Your task to perform on an android device: open a bookmark in the chrome app Image 0: 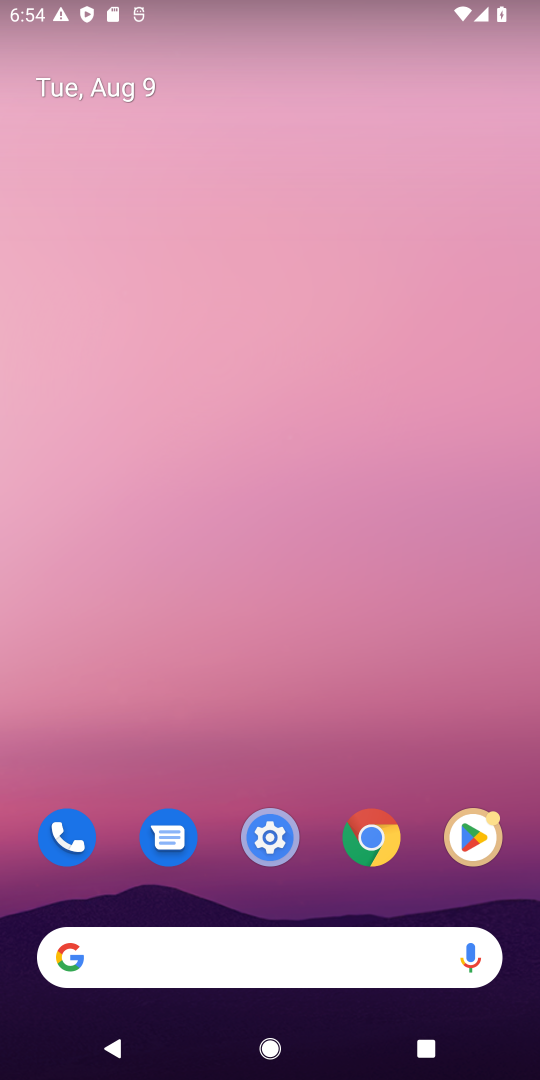
Step 0: click (377, 852)
Your task to perform on an android device: open a bookmark in the chrome app Image 1: 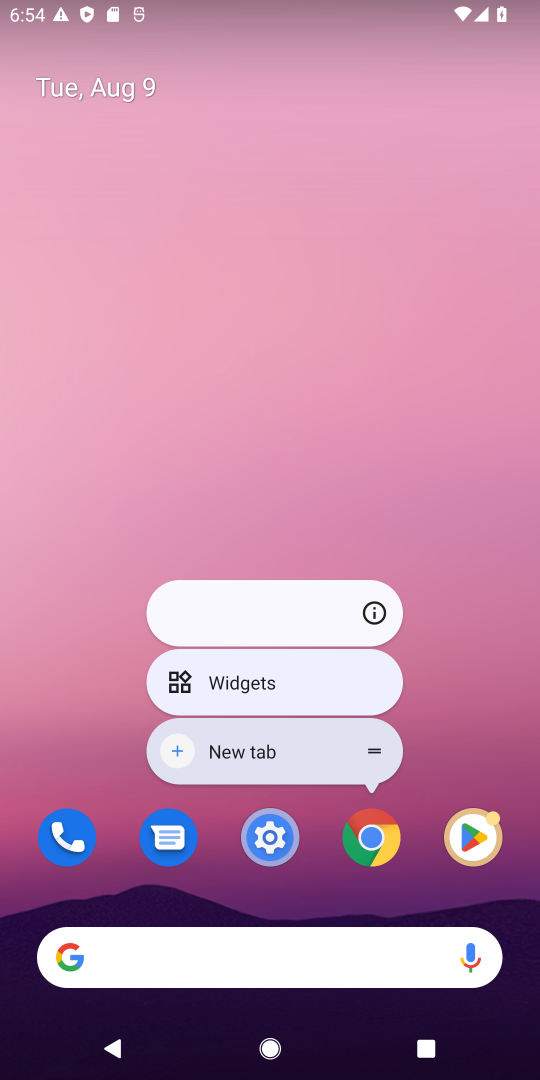
Step 1: click (365, 618)
Your task to perform on an android device: open a bookmark in the chrome app Image 2: 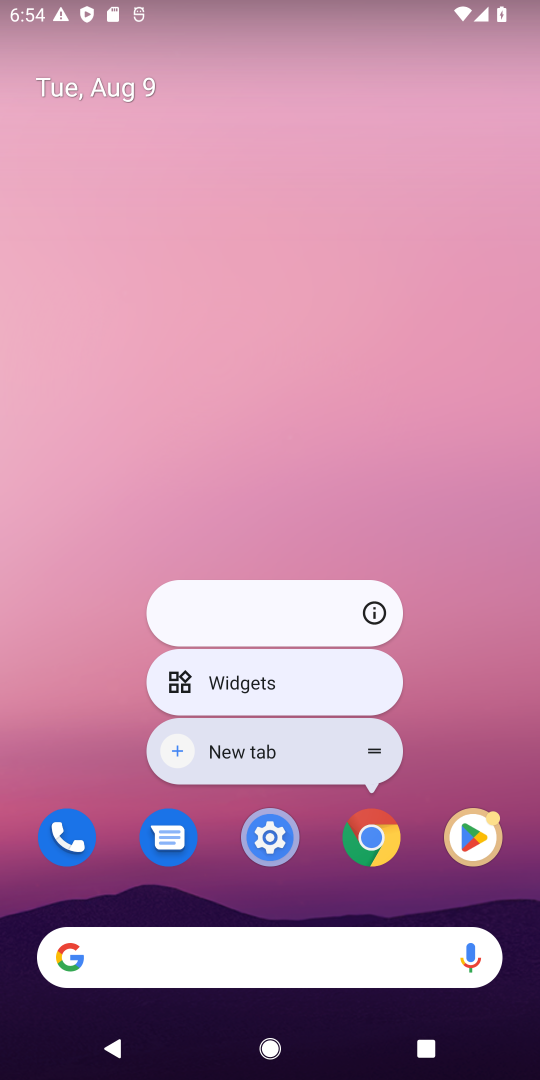
Step 2: click (357, 606)
Your task to perform on an android device: open a bookmark in the chrome app Image 3: 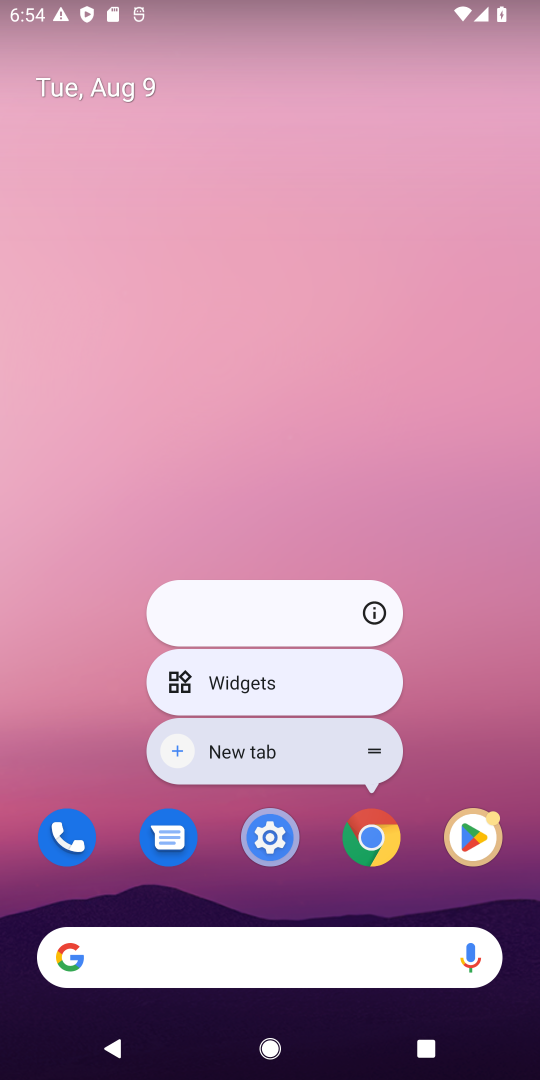
Step 3: click (382, 617)
Your task to perform on an android device: open a bookmark in the chrome app Image 4: 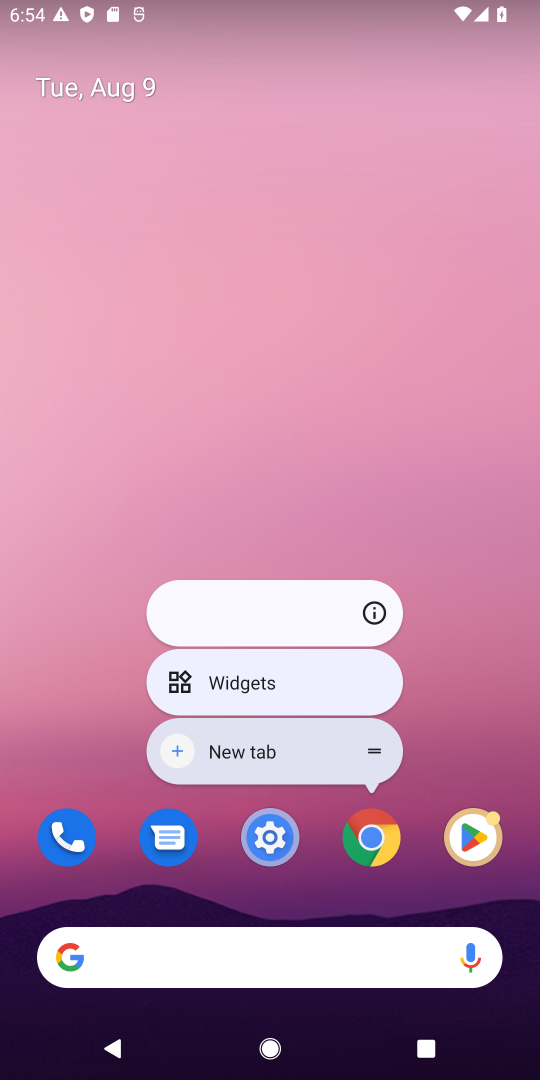
Step 4: click (370, 615)
Your task to perform on an android device: open a bookmark in the chrome app Image 5: 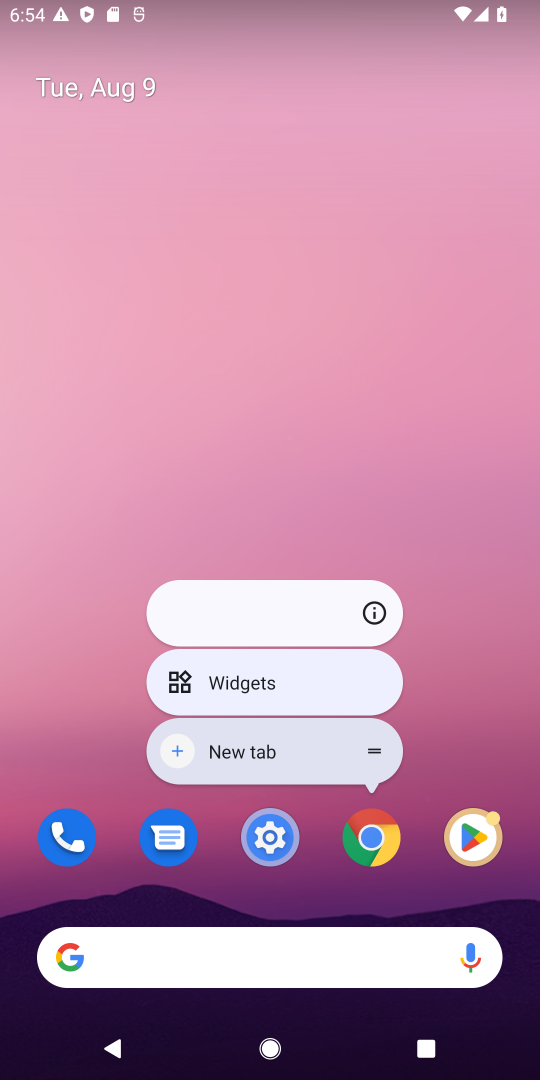
Step 5: click (375, 822)
Your task to perform on an android device: open a bookmark in the chrome app Image 6: 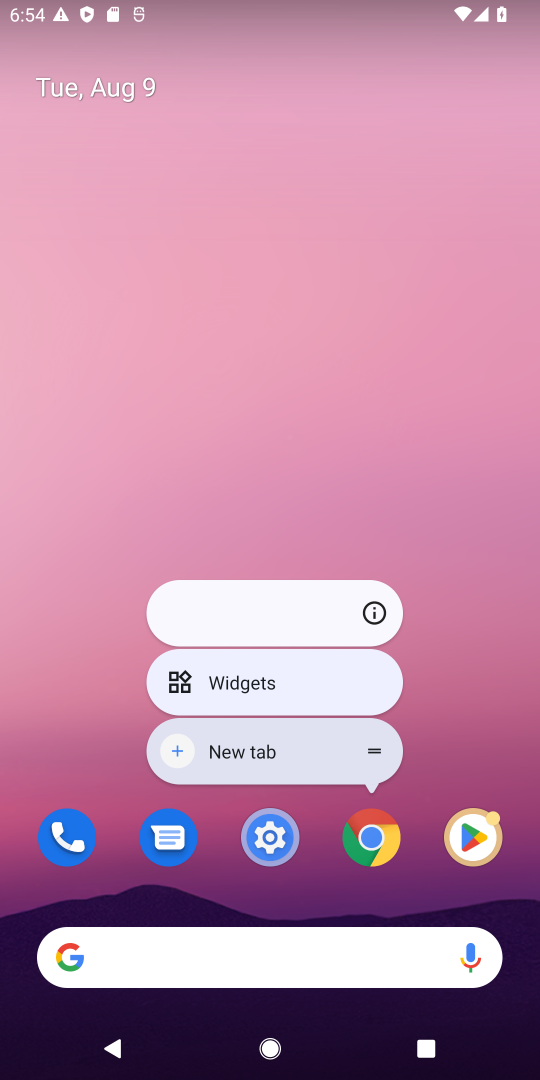
Step 6: click (368, 823)
Your task to perform on an android device: open a bookmark in the chrome app Image 7: 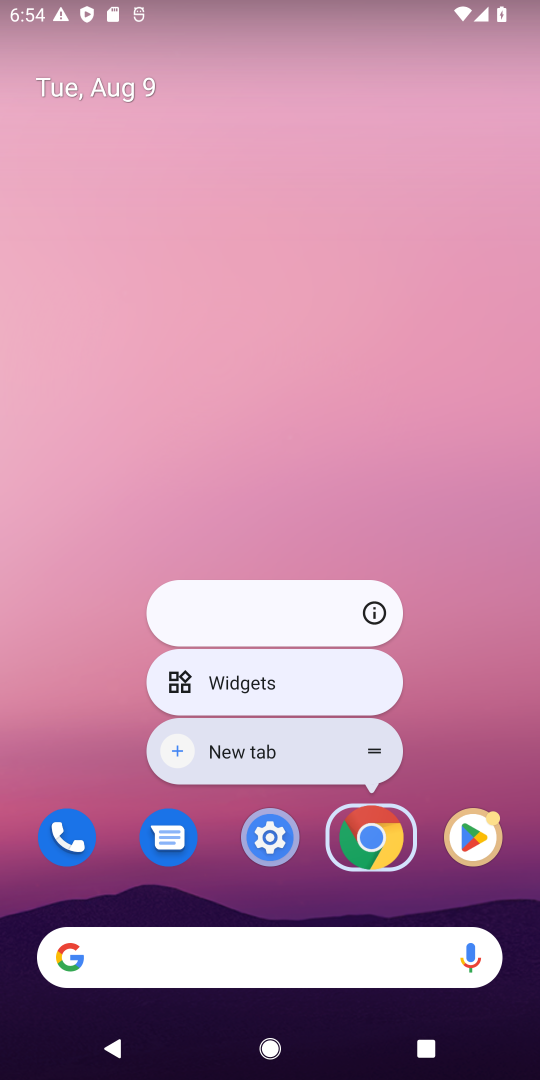
Step 7: click (368, 823)
Your task to perform on an android device: open a bookmark in the chrome app Image 8: 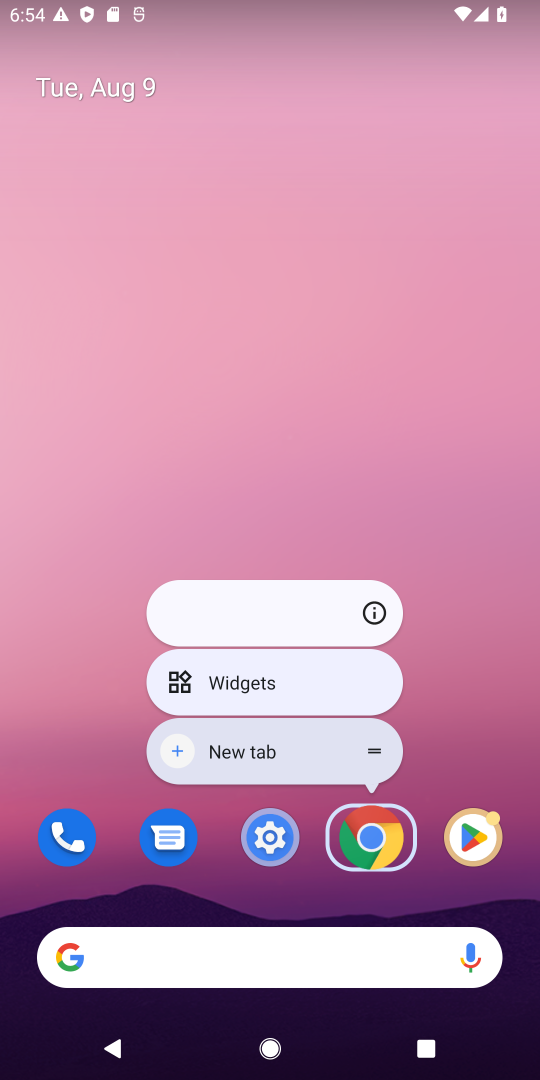
Step 8: click (368, 823)
Your task to perform on an android device: open a bookmark in the chrome app Image 9: 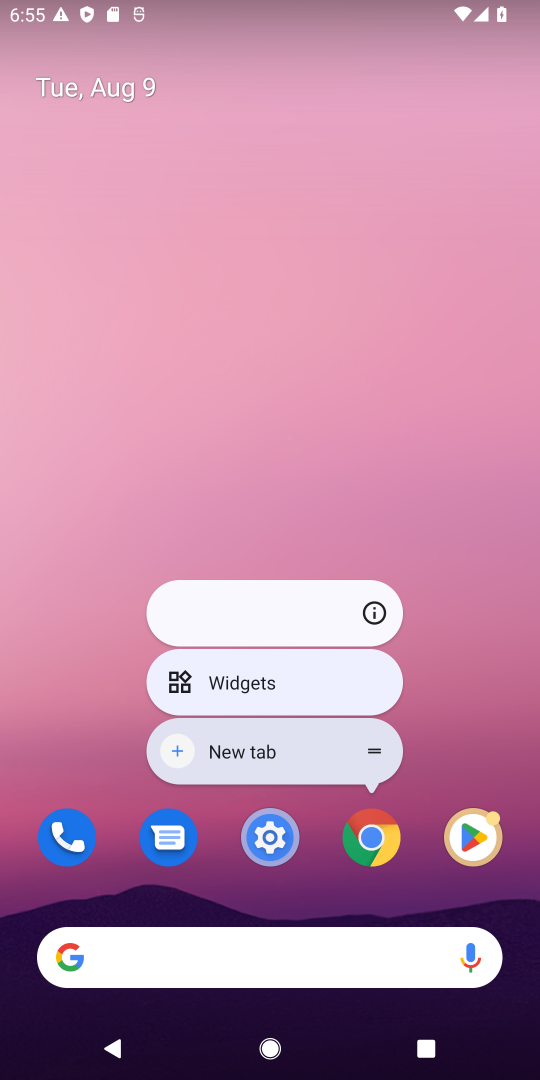
Step 9: click (353, 832)
Your task to perform on an android device: open a bookmark in the chrome app Image 10: 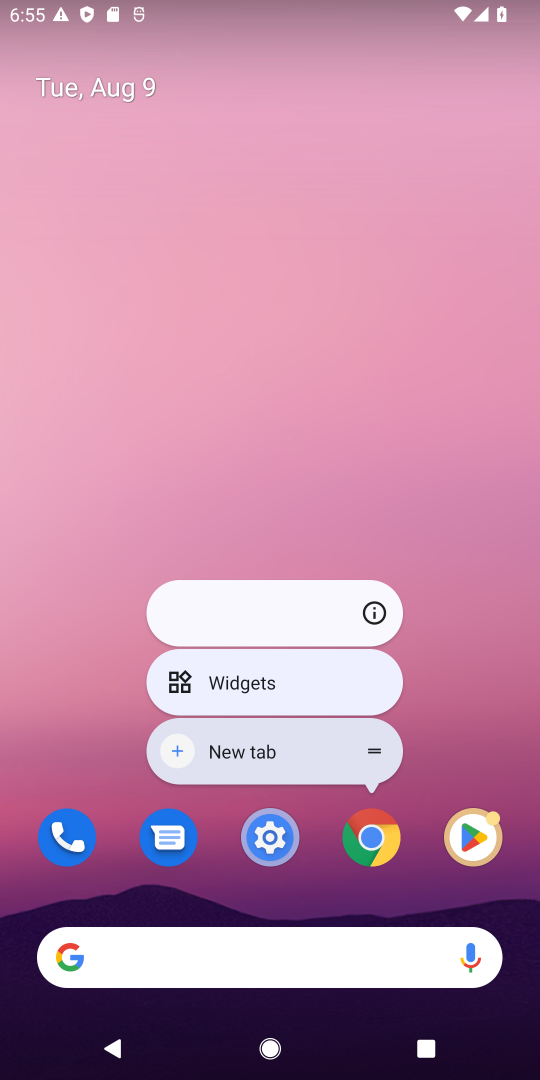
Step 10: click (361, 621)
Your task to perform on an android device: open a bookmark in the chrome app Image 11: 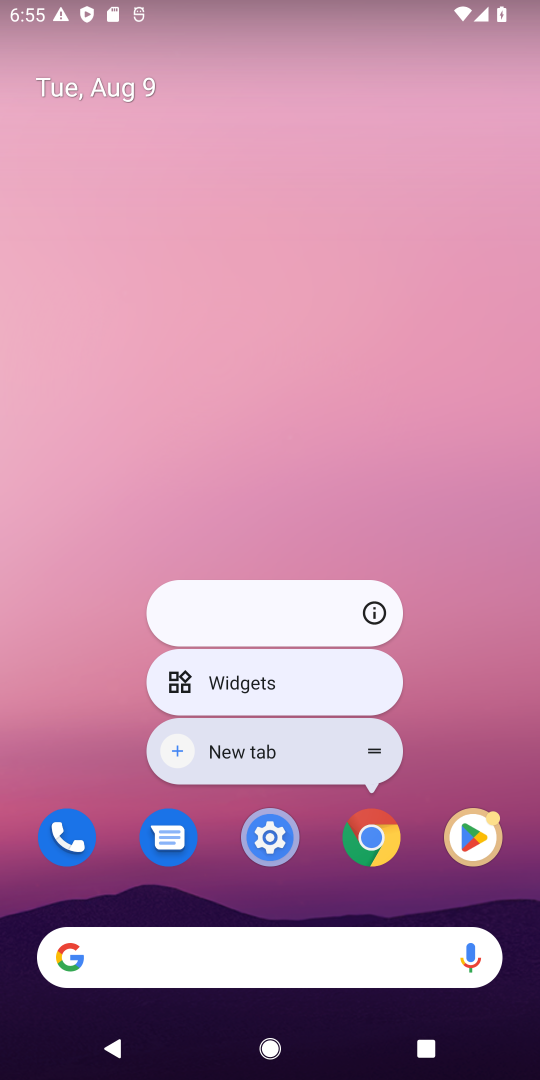
Step 11: click (366, 614)
Your task to perform on an android device: open a bookmark in the chrome app Image 12: 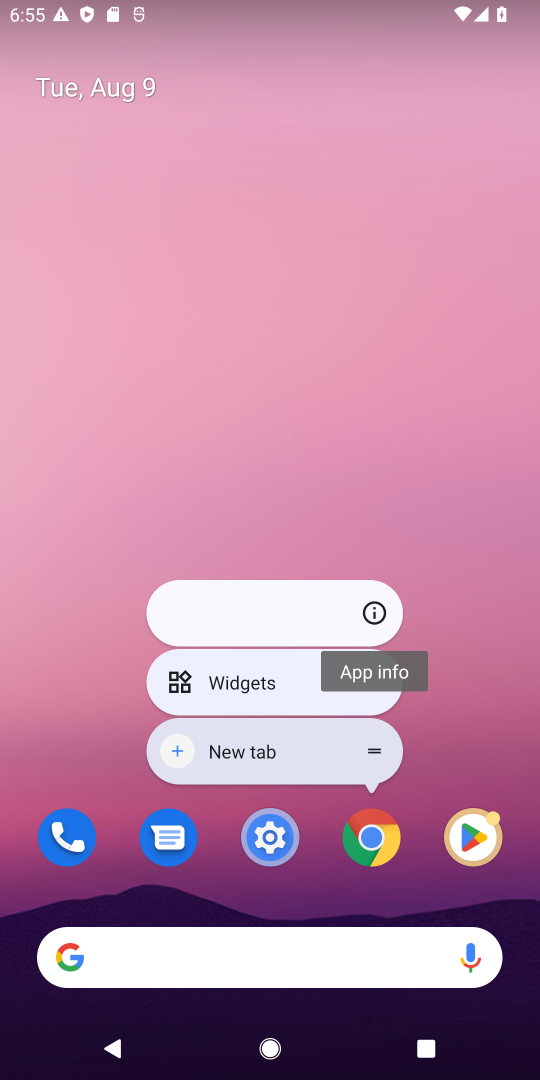
Step 12: click (368, 613)
Your task to perform on an android device: open a bookmark in the chrome app Image 13: 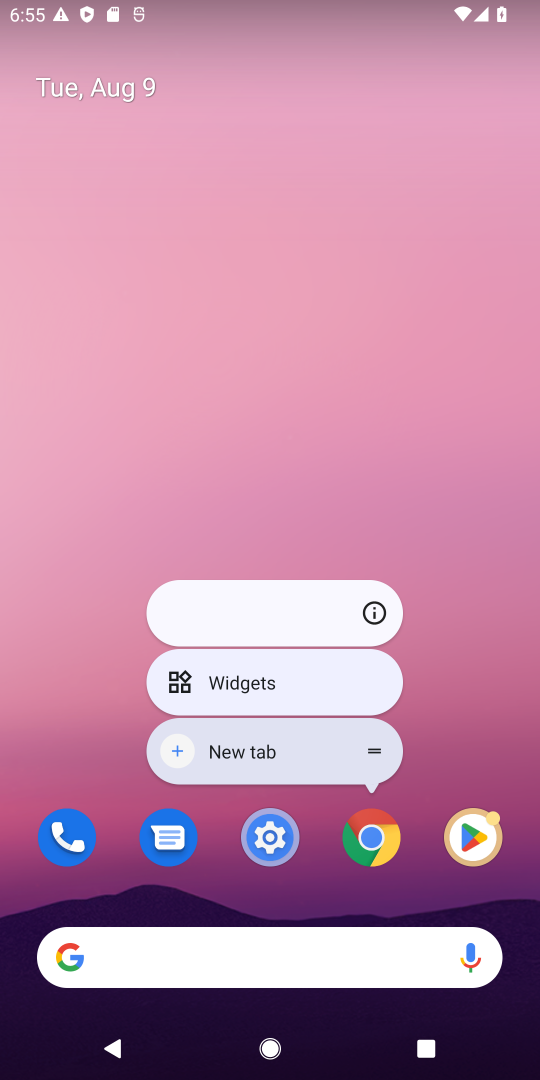
Step 13: click (371, 612)
Your task to perform on an android device: open a bookmark in the chrome app Image 14: 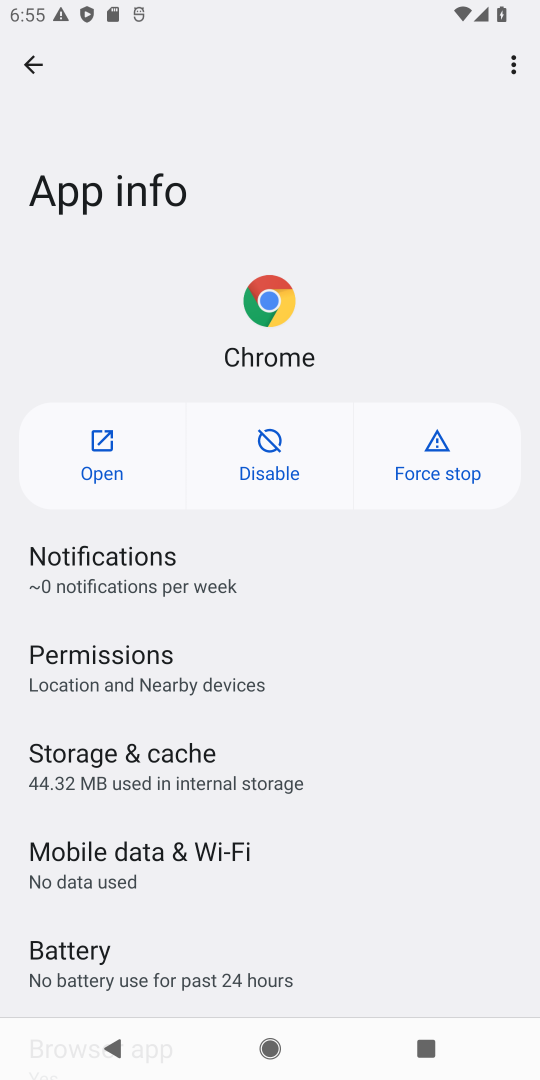
Step 14: click (98, 456)
Your task to perform on an android device: open a bookmark in the chrome app Image 15: 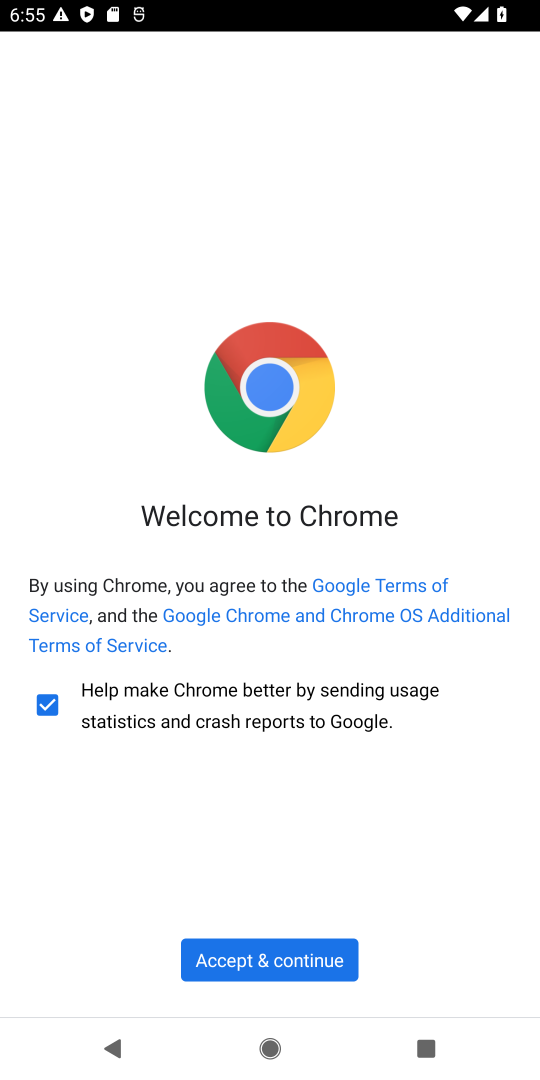
Step 15: click (268, 918)
Your task to perform on an android device: open a bookmark in the chrome app Image 16: 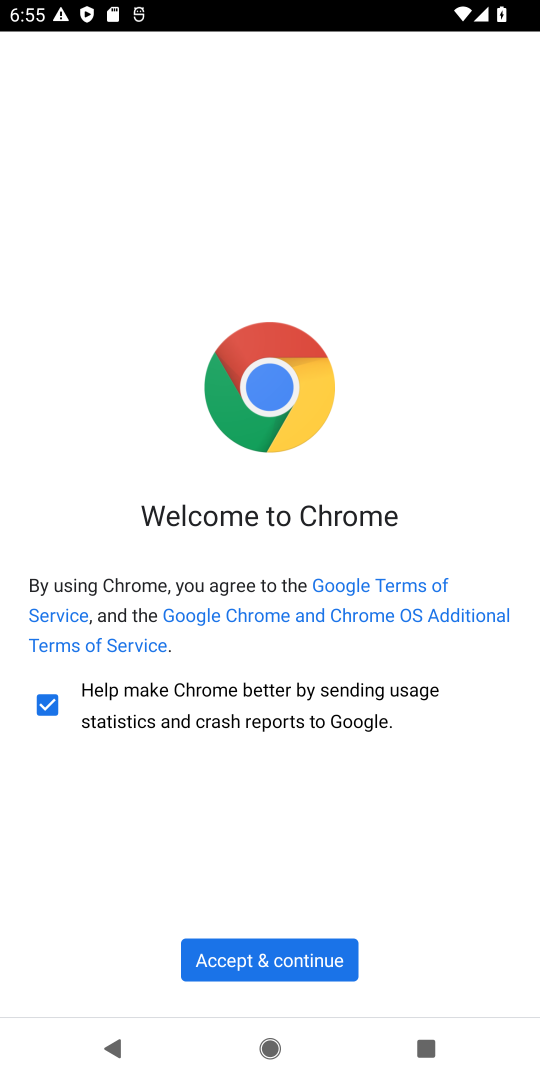
Step 16: click (228, 960)
Your task to perform on an android device: open a bookmark in the chrome app Image 17: 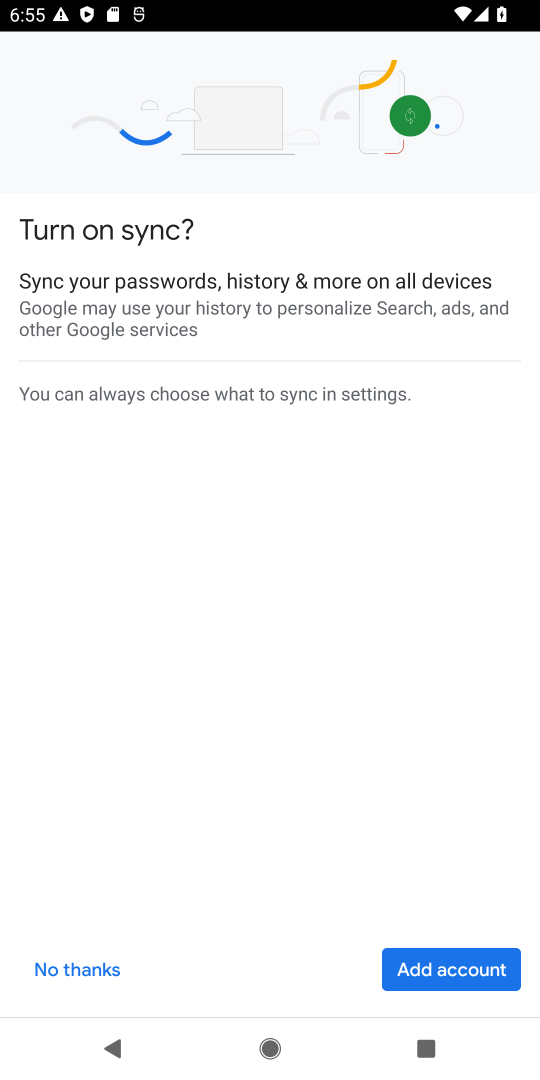
Step 17: drag from (500, 937) to (428, 986)
Your task to perform on an android device: open a bookmark in the chrome app Image 18: 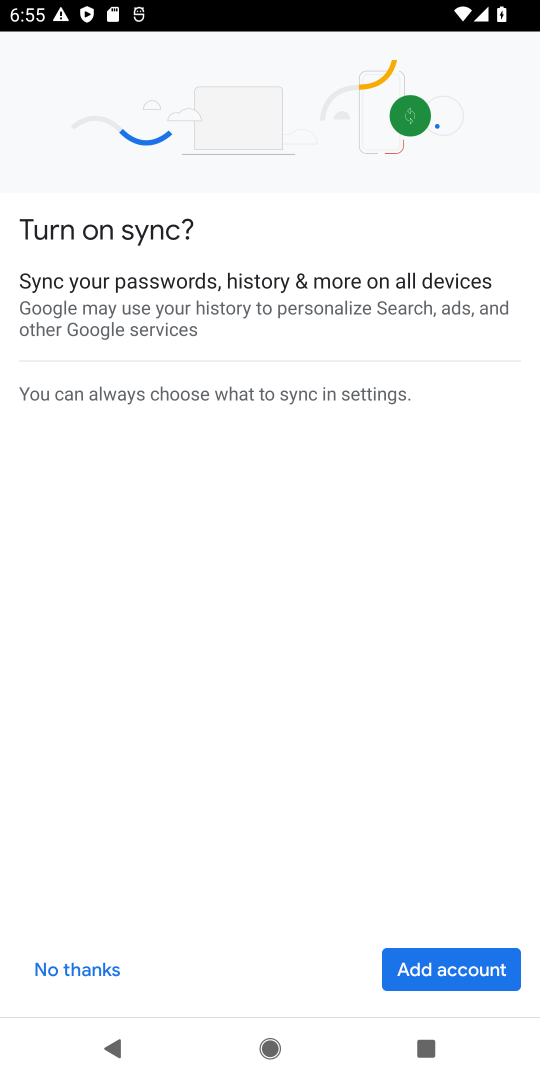
Step 18: click (83, 970)
Your task to perform on an android device: open a bookmark in the chrome app Image 19: 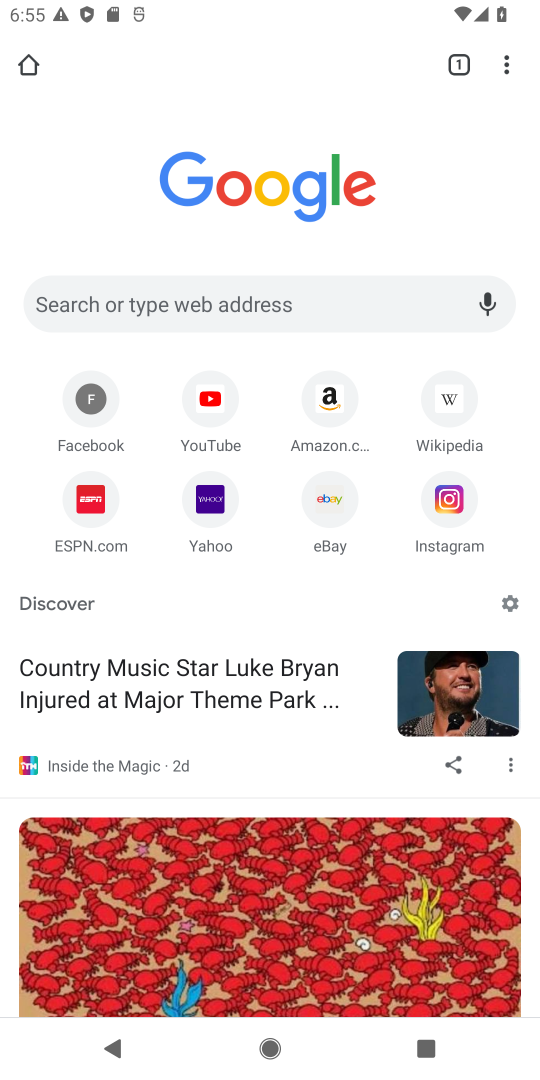
Step 19: task complete